Your task to perform on an android device: toggle airplane mode Image 0: 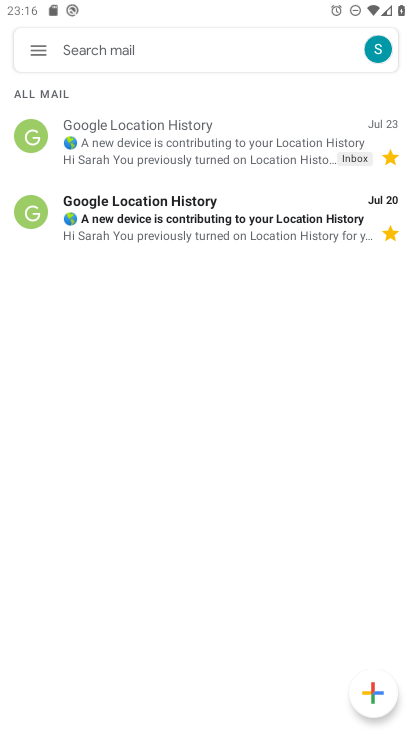
Step 0: press home button
Your task to perform on an android device: toggle airplane mode Image 1: 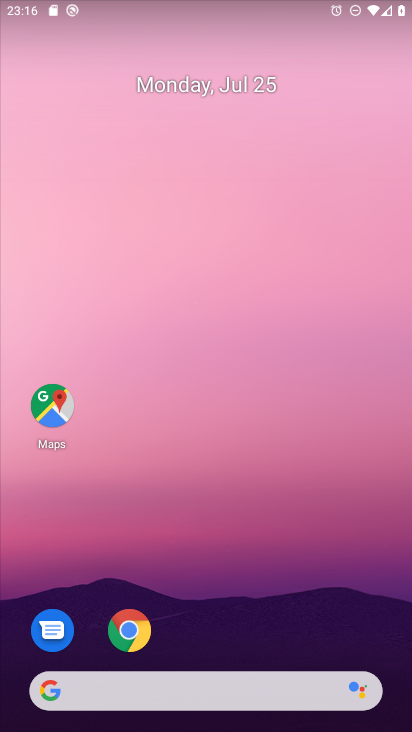
Step 1: drag from (332, 629) to (288, 38)
Your task to perform on an android device: toggle airplane mode Image 2: 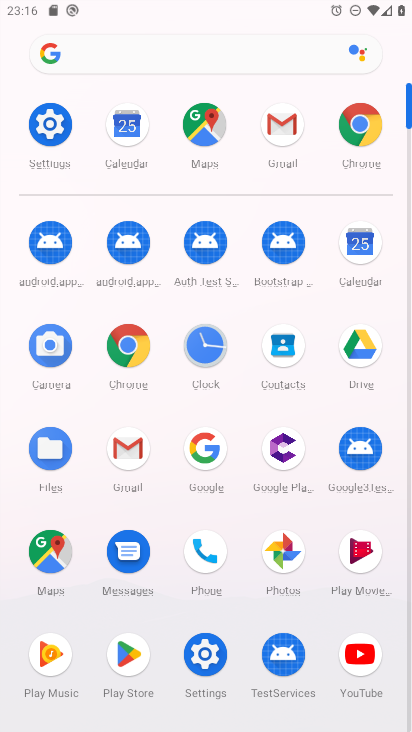
Step 2: click (37, 118)
Your task to perform on an android device: toggle airplane mode Image 3: 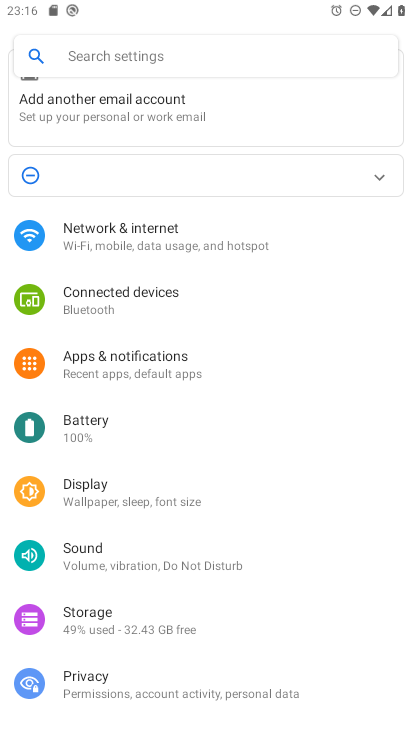
Step 3: click (142, 234)
Your task to perform on an android device: toggle airplane mode Image 4: 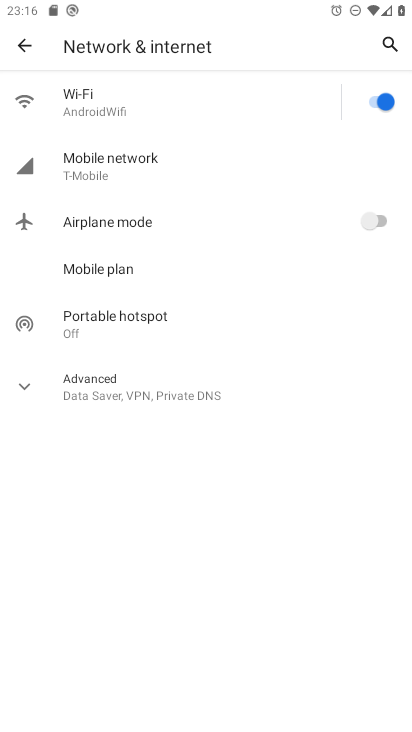
Step 4: click (365, 219)
Your task to perform on an android device: toggle airplane mode Image 5: 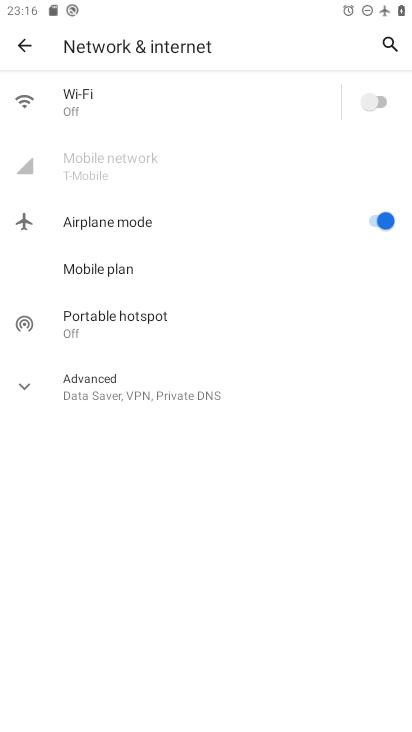
Step 5: task complete